Your task to perform on an android device: Google the capital of Panama Image 0: 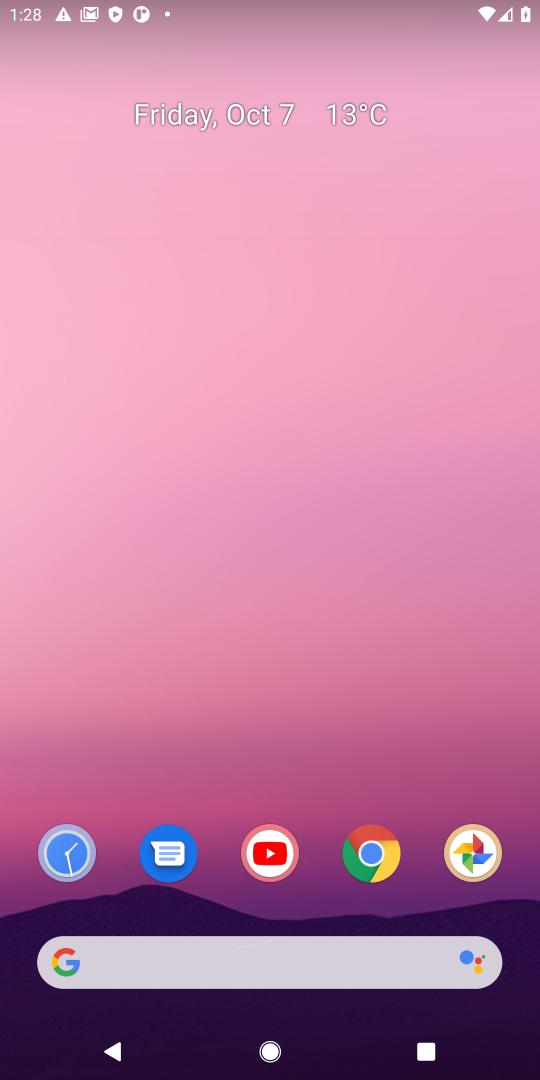
Step 0: drag from (220, 919) to (132, 396)
Your task to perform on an android device: Google the capital of Panama Image 1: 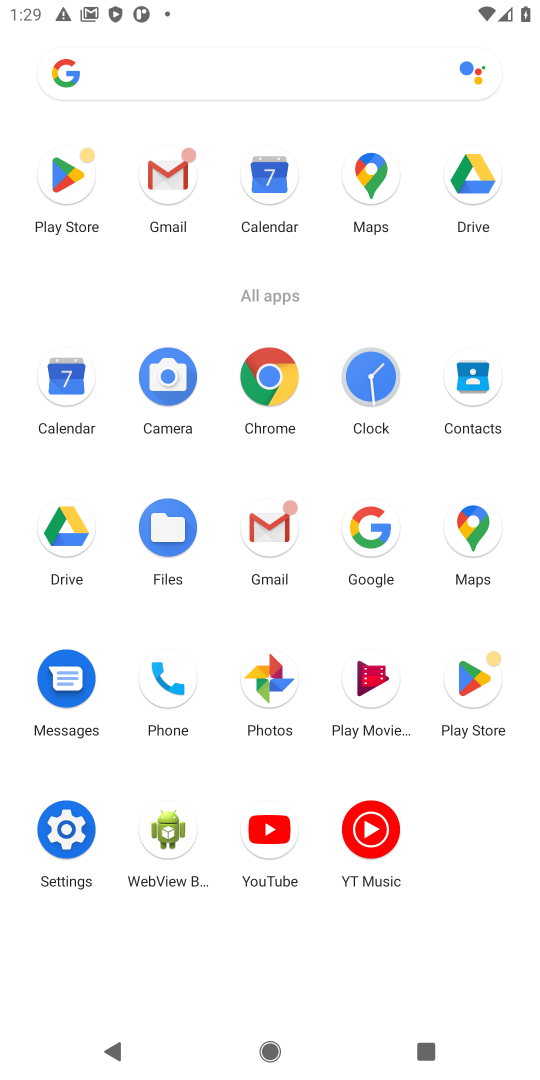
Step 1: press home button
Your task to perform on an android device: Google the capital of Panama Image 2: 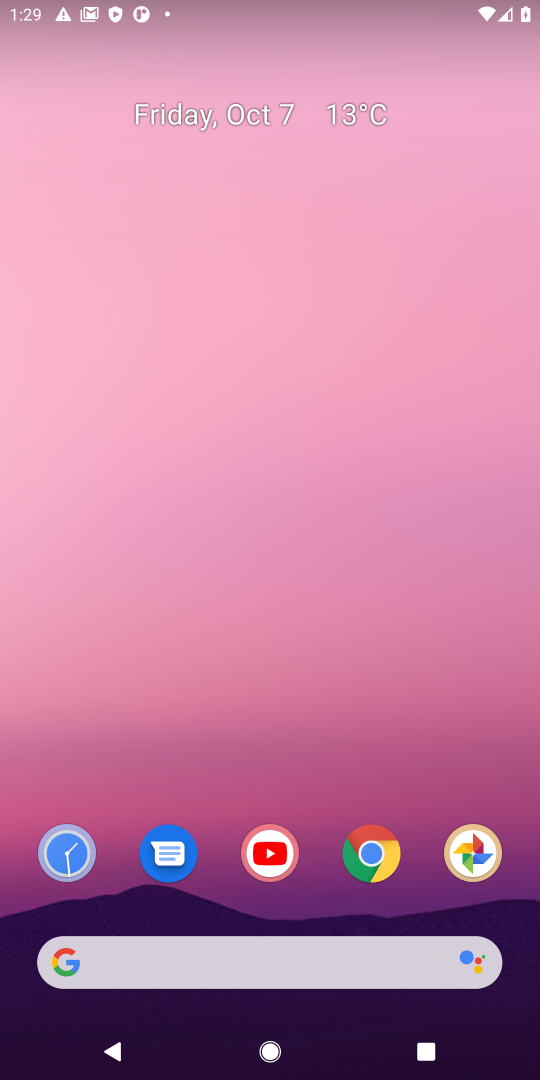
Step 2: click (200, 972)
Your task to perform on an android device: Google the capital of Panama Image 3: 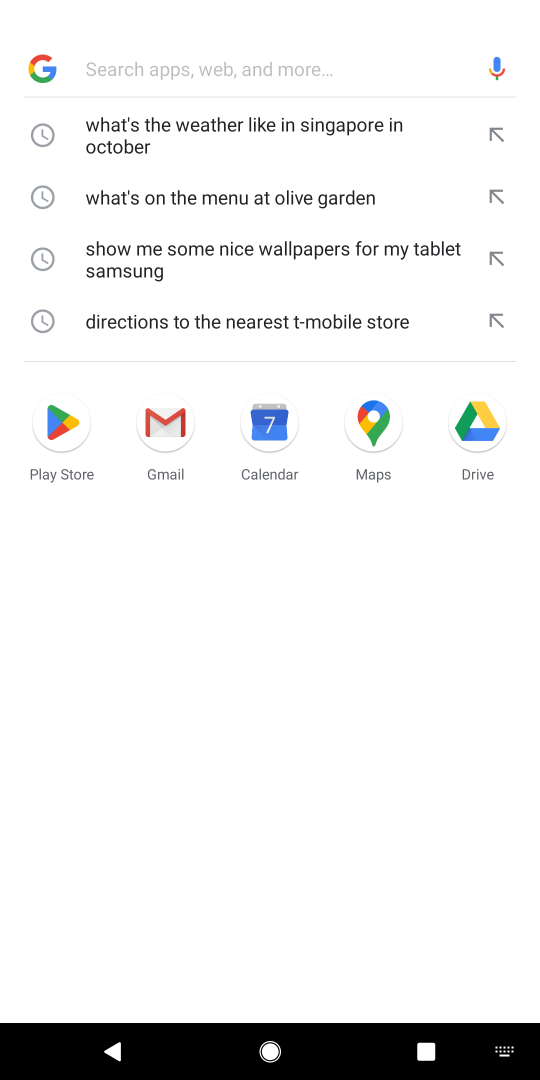
Step 3: type "Google the capital of Panama"
Your task to perform on an android device: Google the capital of Panama Image 4: 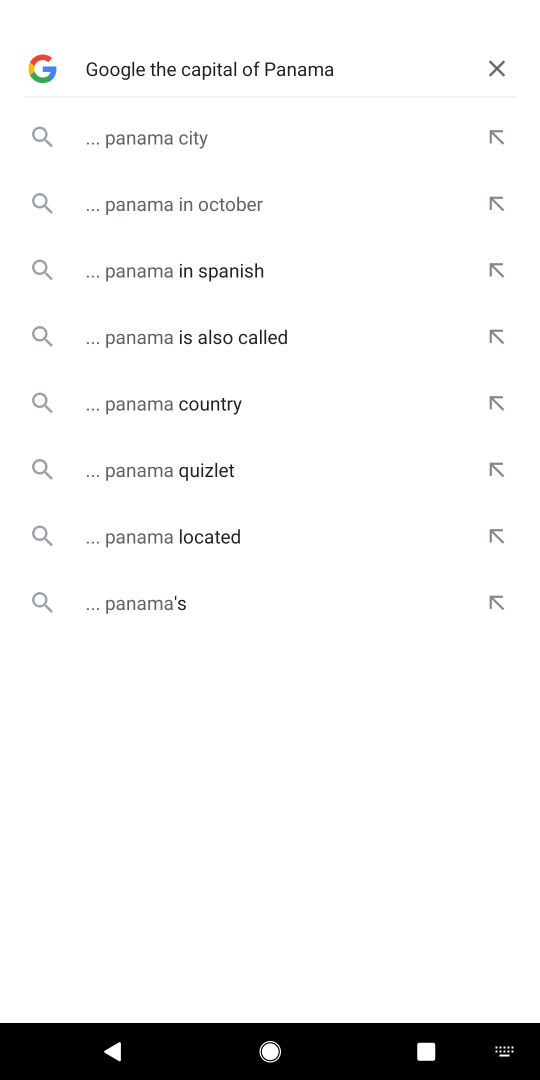
Step 4: type "Google the capital of Panama"
Your task to perform on an android device: Google the capital of Panama Image 5: 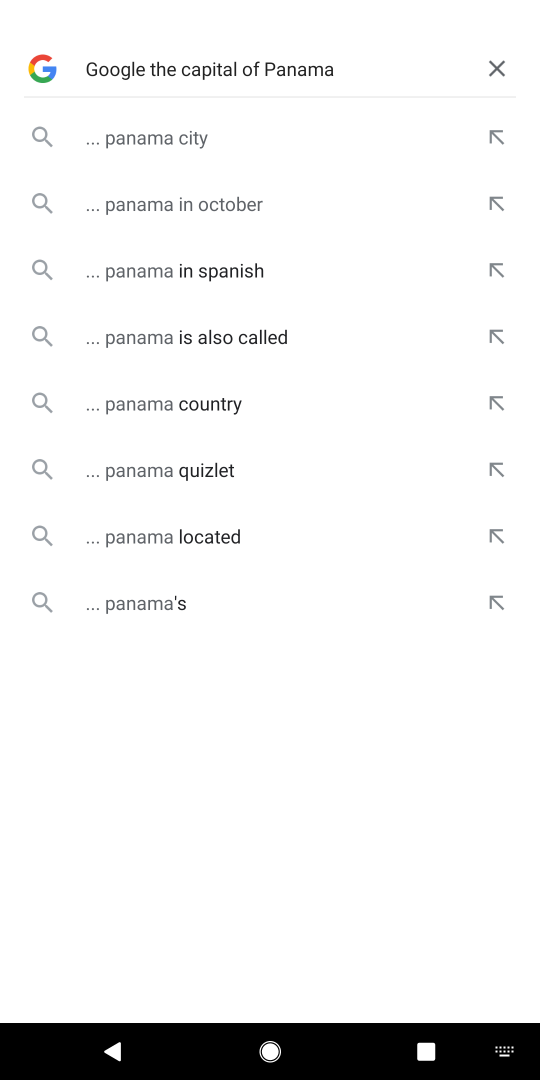
Step 5: click (286, 141)
Your task to perform on an android device: Google the capital of Panama Image 6: 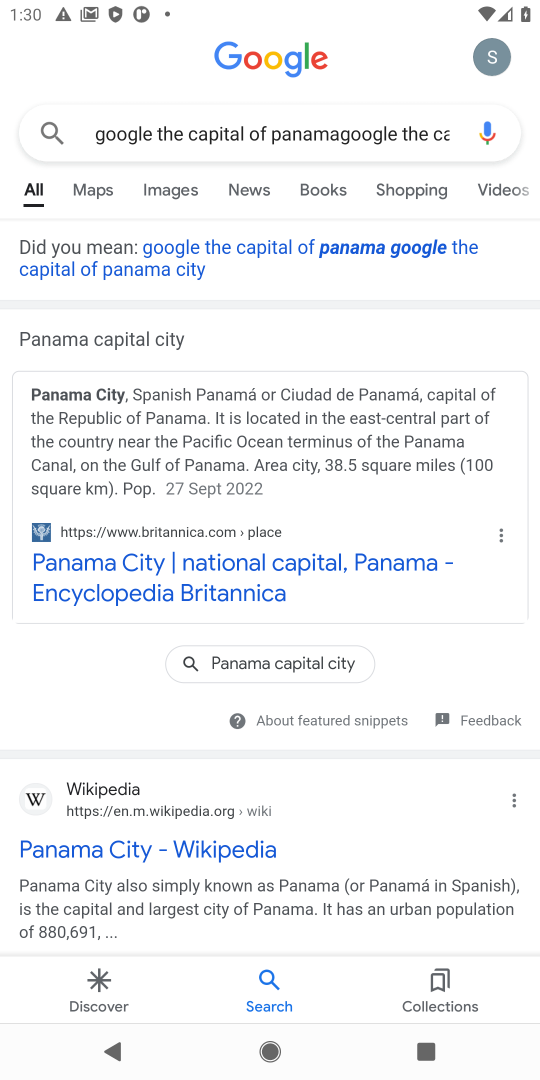
Step 6: click (226, 282)
Your task to perform on an android device: Google the capital of Panama Image 7: 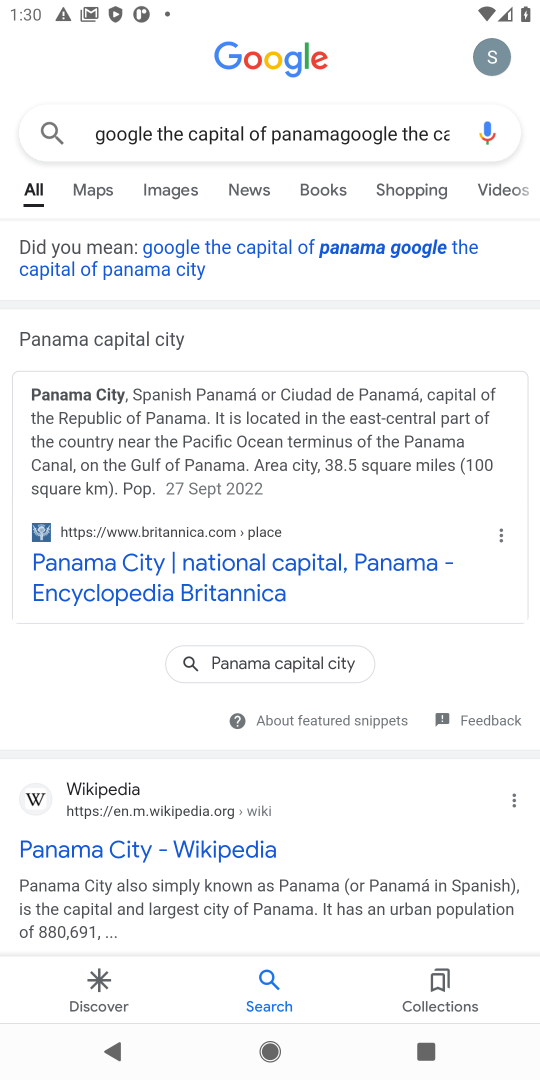
Step 7: task complete